Your task to perform on an android device: Check the weather Image 0: 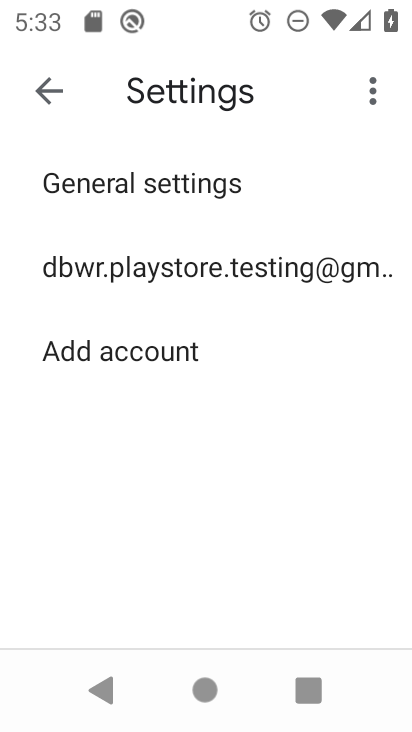
Step 0: press home button
Your task to perform on an android device: Check the weather Image 1: 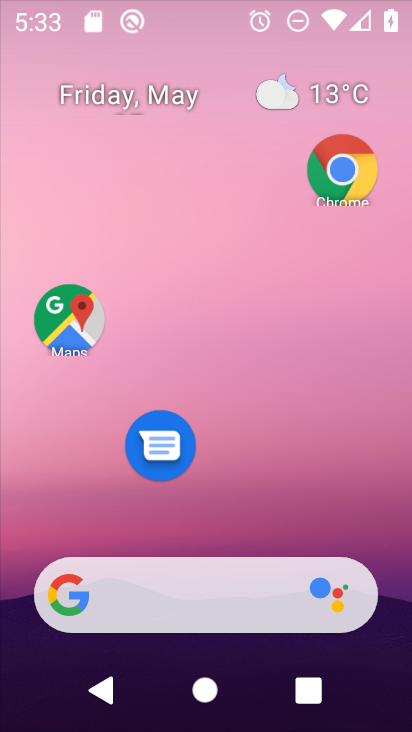
Step 1: click (402, 455)
Your task to perform on an android device: Check the weather Image 2: 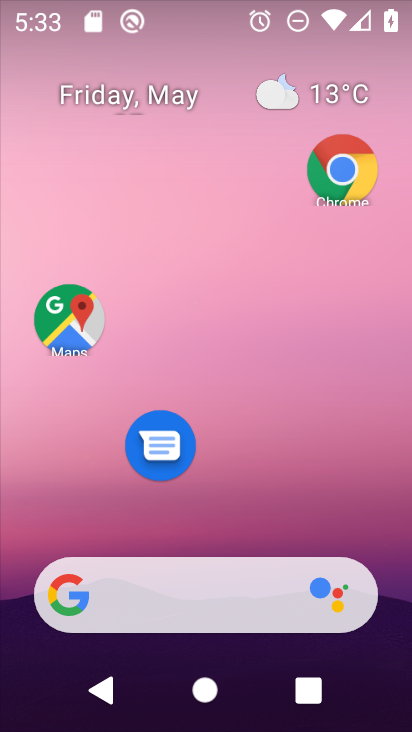
Step 2: click (200, 597)
Your task to perform on an android device: Check the weather Image 3: 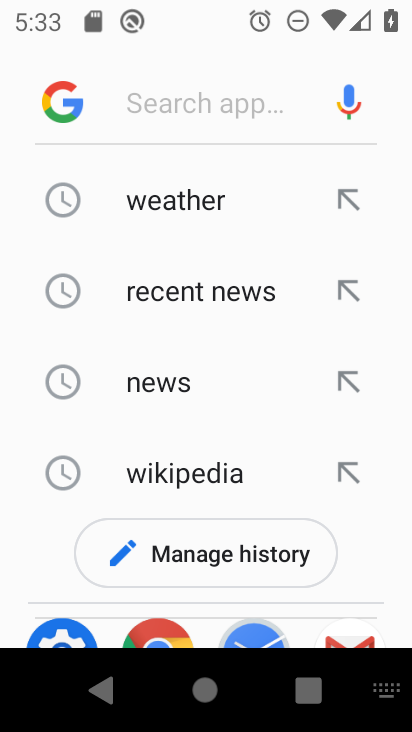
Step 3: click (176, 218)
Your task to perform on an android device: Check the weather Image 4: 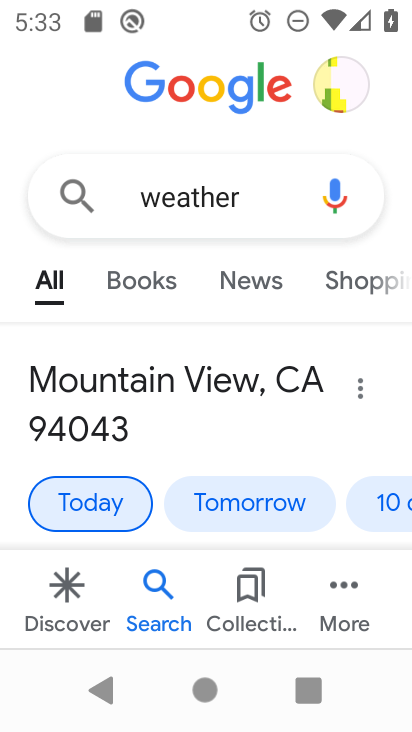
Step 4: task complete